Your task to perform on an android device: Open ESPN.com Image 0: 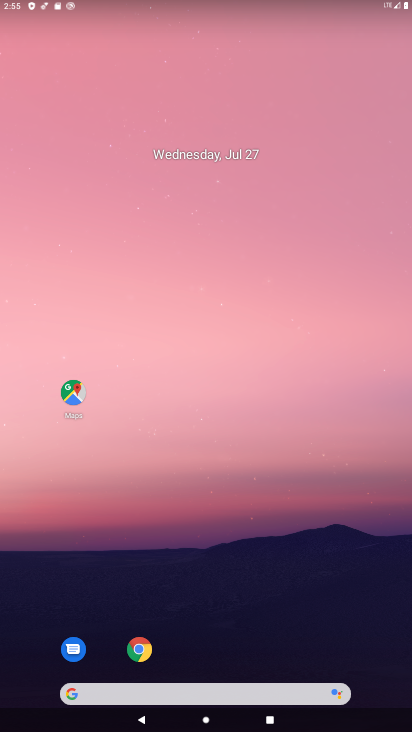
Step 0: press home button
Your task to perform on an android device: Open ESPN.com Image 1: 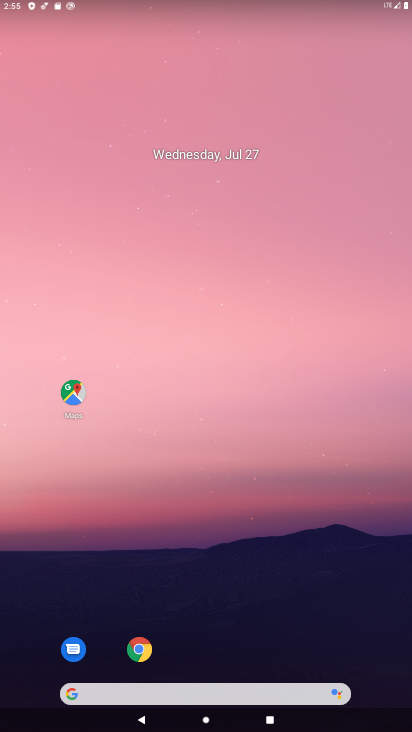
Step 1: click (134, 647)
Your task to perform on an android device: Open ESPN.com Image 2: 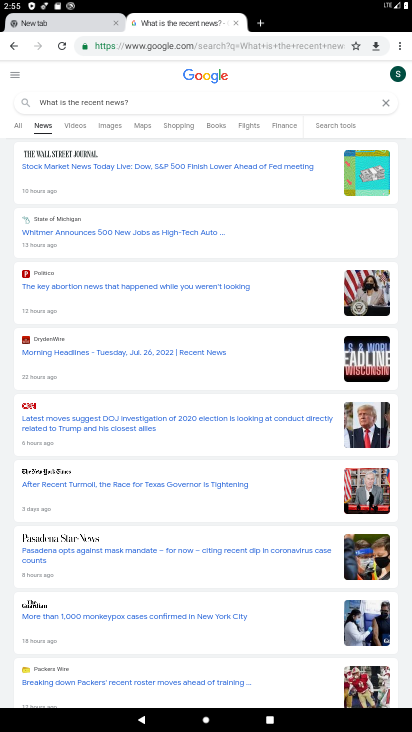
Step 2: click (210, 47)
Your task to perform on an android device: Open ESPN.com Image 3: 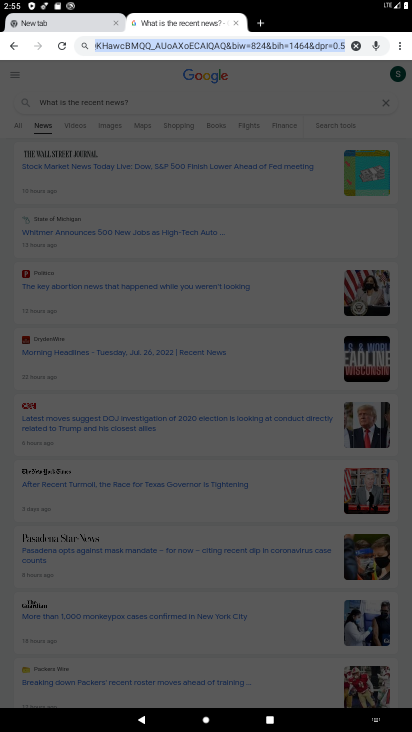
Step 3: type "ESPN.com"
Your task to perform on an android device: Open ESPN.com Image 4: 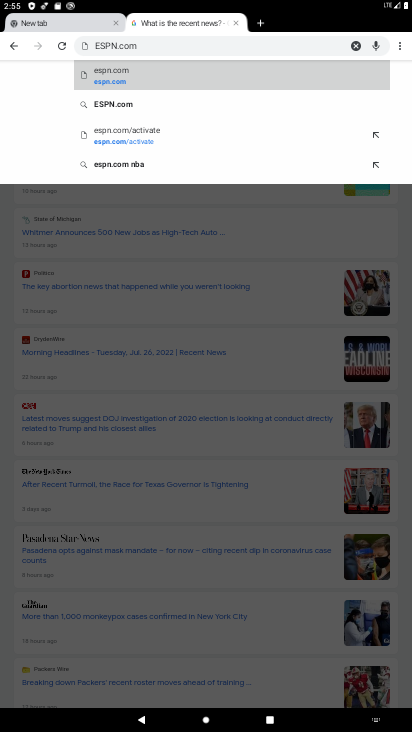
Step 4: click (113, 79)
Your task to perform on an android device: Open ESPN.com Image 5: 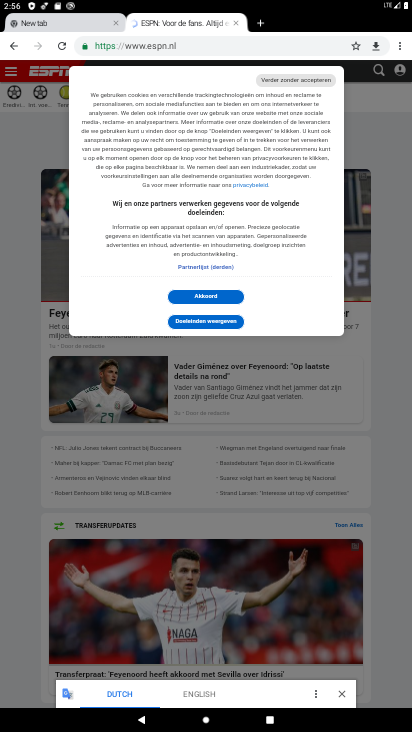
Step 5: click (211, 291)
Your task to perform on an android device: Open ESPN.com Image 6: 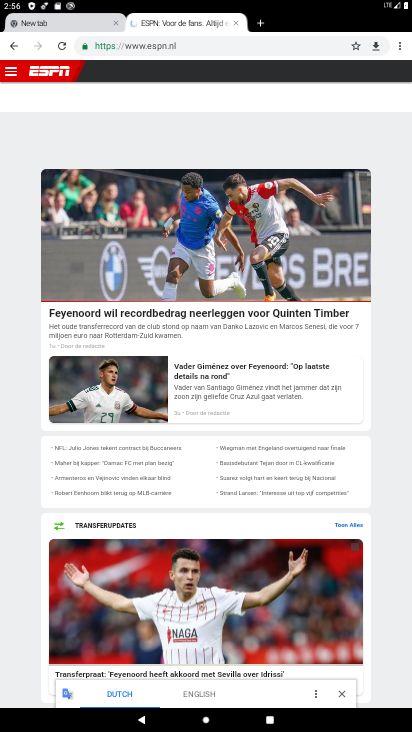
Step 6: task complete